Your task to perform on an android device: Open calendar and show me the third week of next month Image 0: 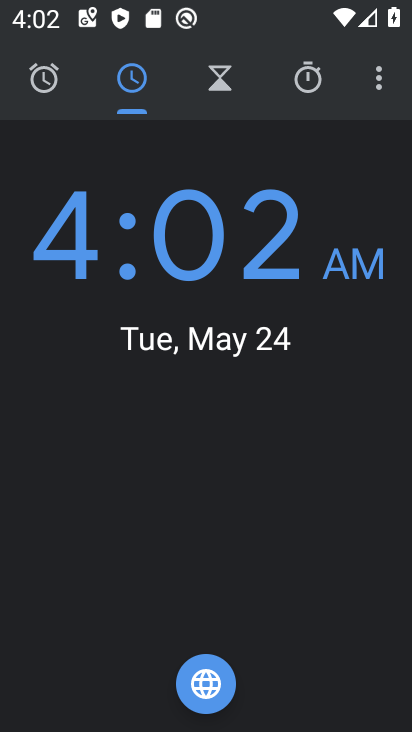
Step 0: press home button
Your task to perform on an android device: Open calendar and show me the third week of next month Image 1: 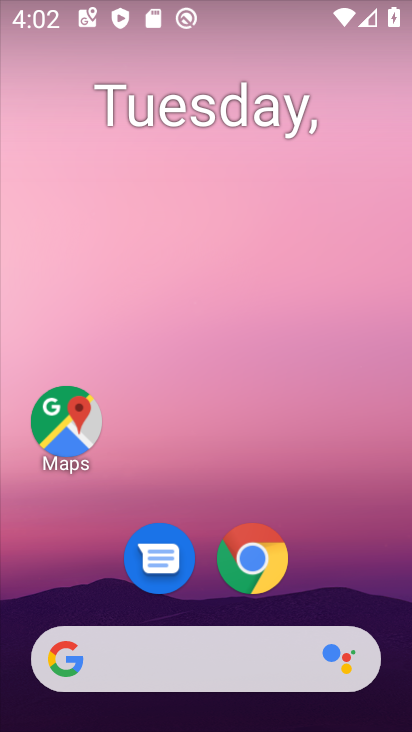
Step 1: drag from (89, 608) to (210, 148)
Your task to perform on an android device: Open calendar and show me the third week of next month Image 2: 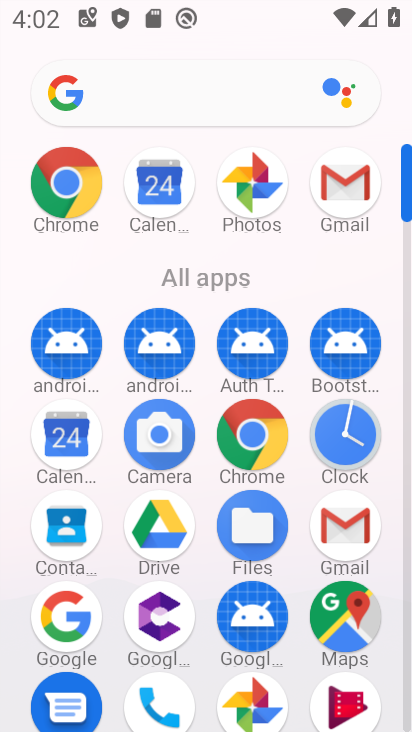
Step 2: click (65, 457)
Your task to perform on an android device: Open calendar and show me the third week of next month Image 3: 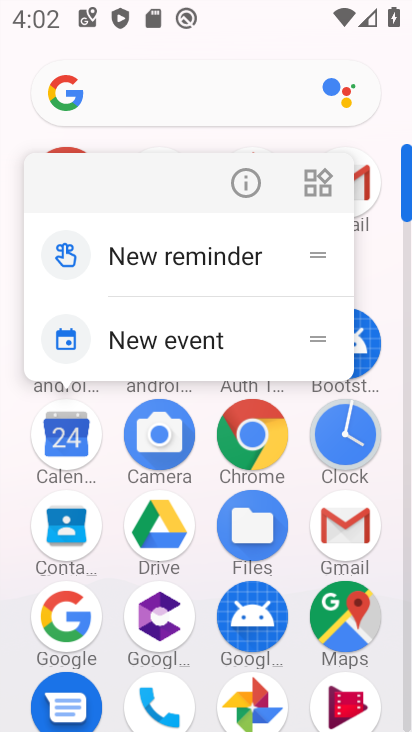
Step 3: click (70, 460)
Your task to perform on an android device: Open calendar and show me the third week of next month Image 4: 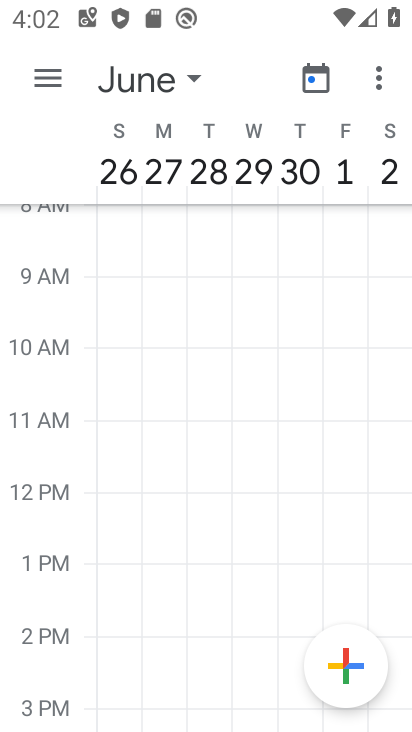
Step 4: click (141, 88)
Your task to perform on an android device: Open calendar and show me the third week of next month Image 5: 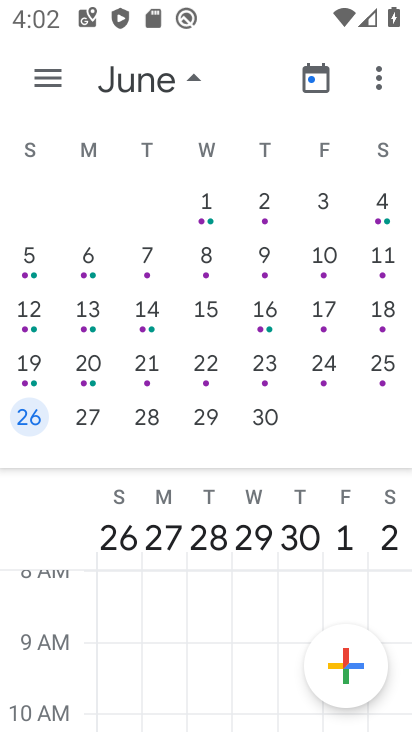
Step 5: click (33, 369)
Your task to perform on an android device: Open calendar and show me the third week of next month Image 6: 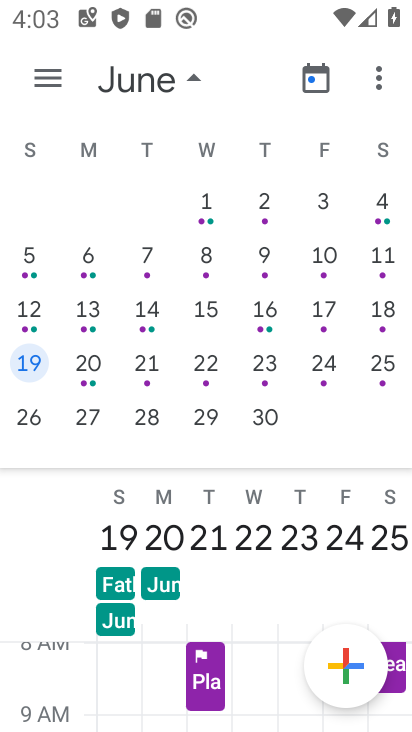
Step 6: click (157, 81)
Your task to perform on an android device: Open calendar and show me the third week of next month Image 7: 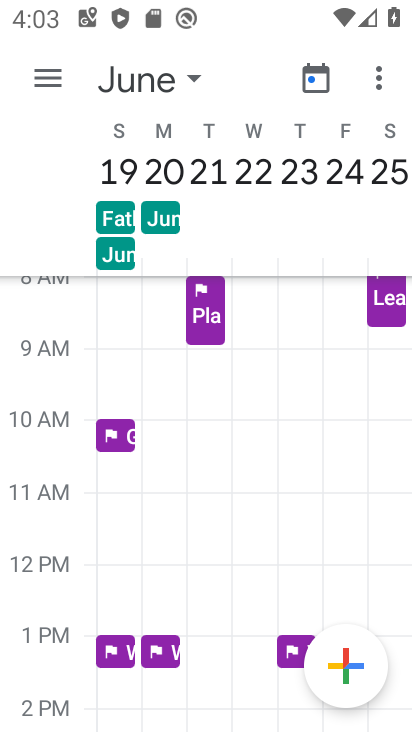
Step 7: task complete